Your task to perform on an android device: check data usage Image 0: 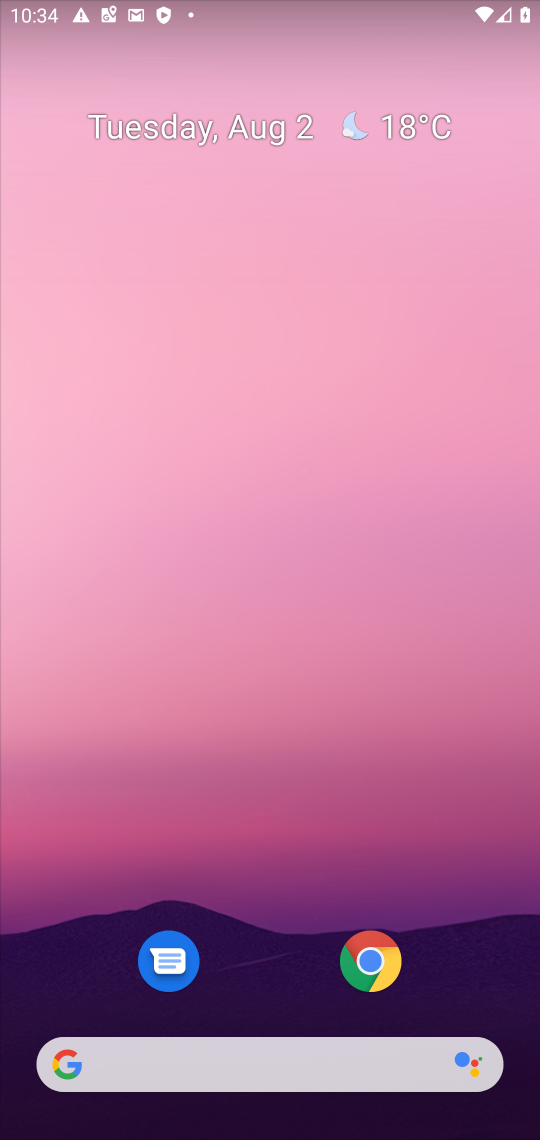
Step 0: press home button
Your task to perform on an android device: check data usage Image 1: 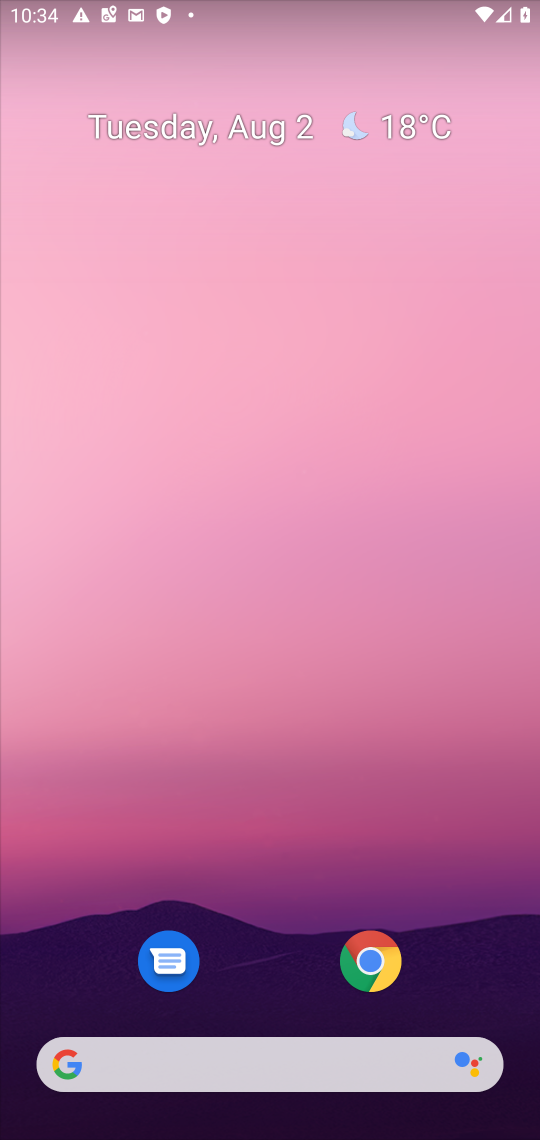
Step 1: drag from (257, 866) to (313, 291)
Your task to perform on an android device: check data usage Image 2: 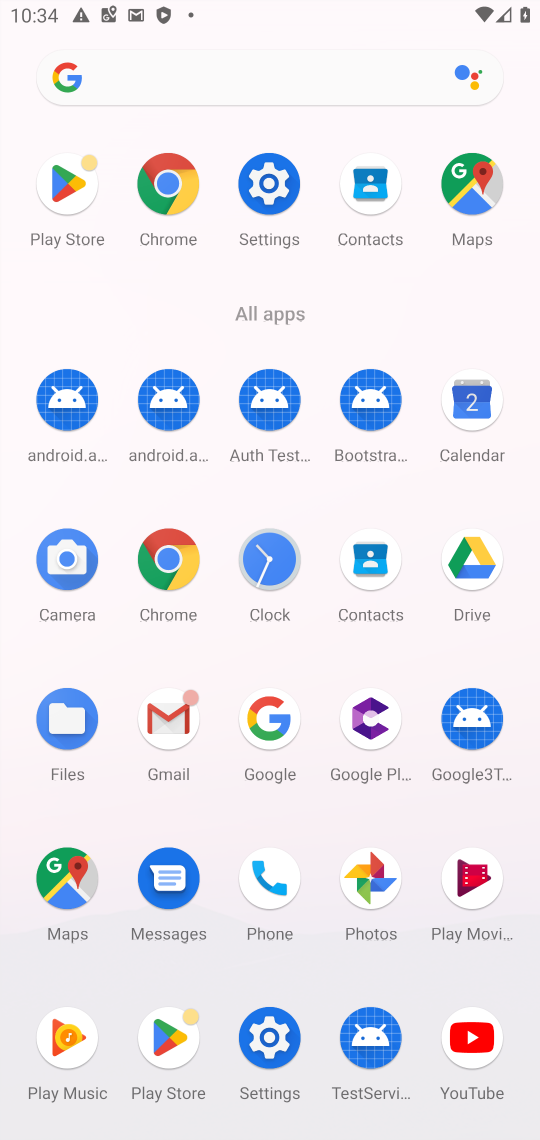
Step 2: drag from (459, 8) to (334, 984)
Your task to perform on an android device: check data usage Image 3: 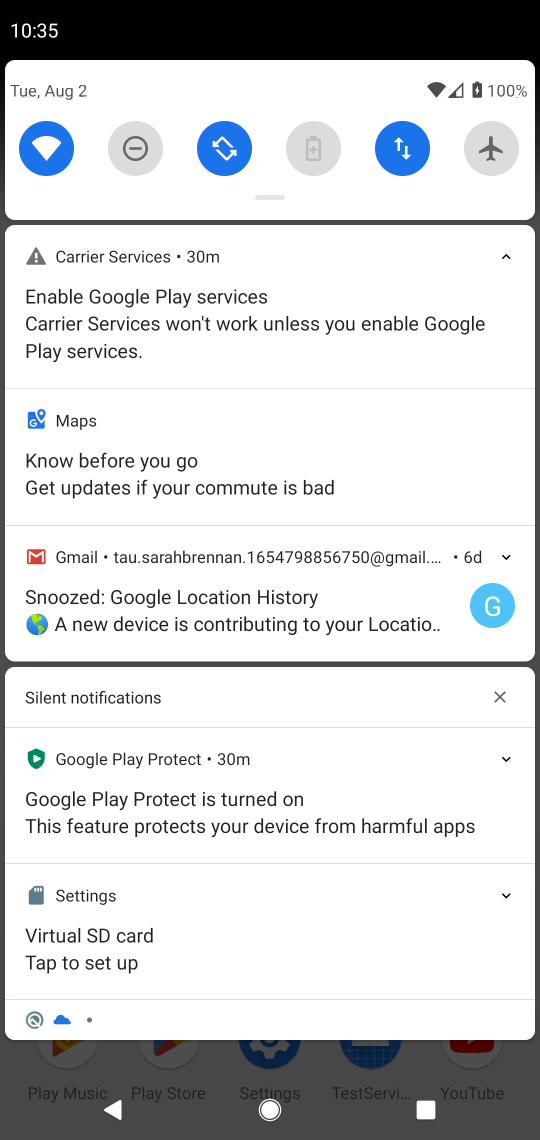
Step 3: drag from (255, 148) to (287, 612)
Your task to perform on an android device: check data usage Image 4: 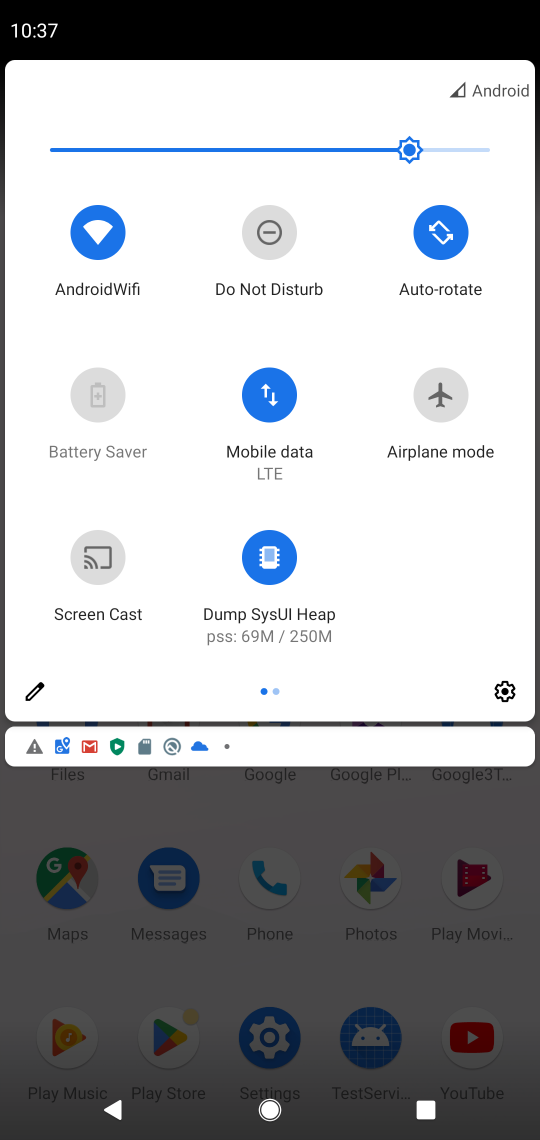
Step 4: click (224, 417)
Your task to perform on an android device: check data usage Image 5: 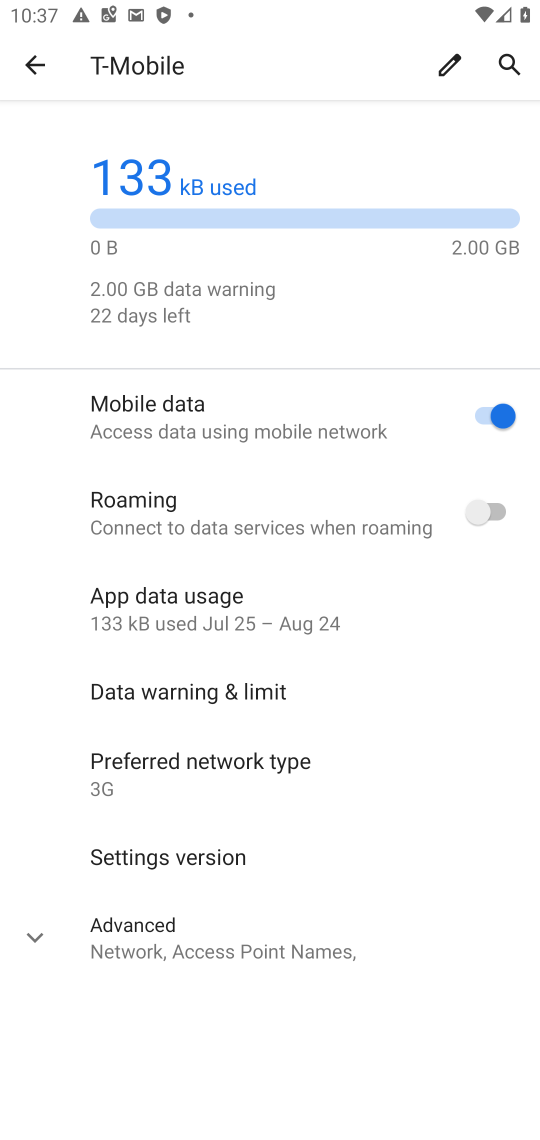
Step 5: click (186, 964)
Your task to perform on an android device: check data usage Image 6: 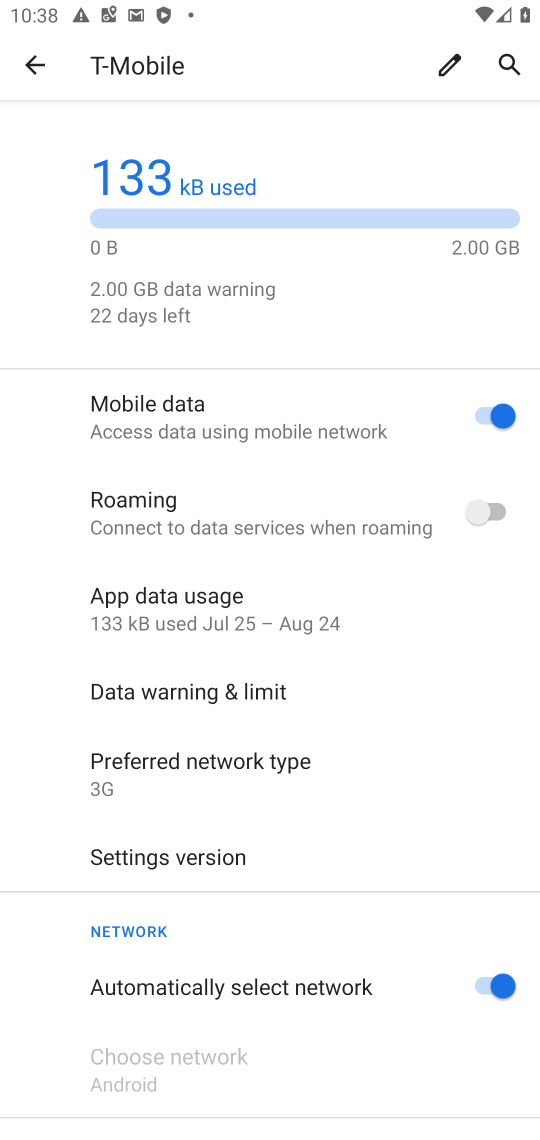
Step 6: task complete